Your task to perform on an android device: Open calendar and show me the fourth week of next month Image 0: 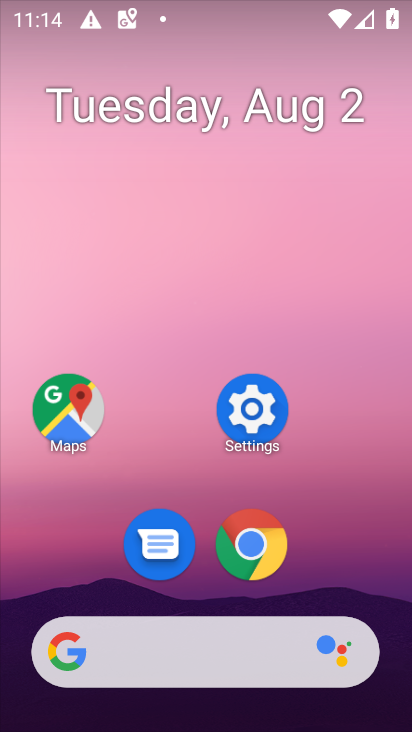
Step 0: drag from (185, 658) to (262, 137)
Your task to perform on an android device: Open calendar and show me the fourth week of next month Image 1: 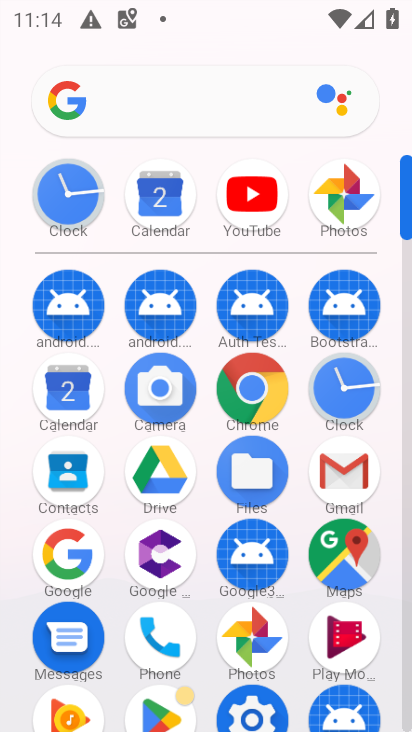
Step 1: click (165, 197)
Your task to perform on an android device: Open calendar and show me the fourth week of next month Image 2: 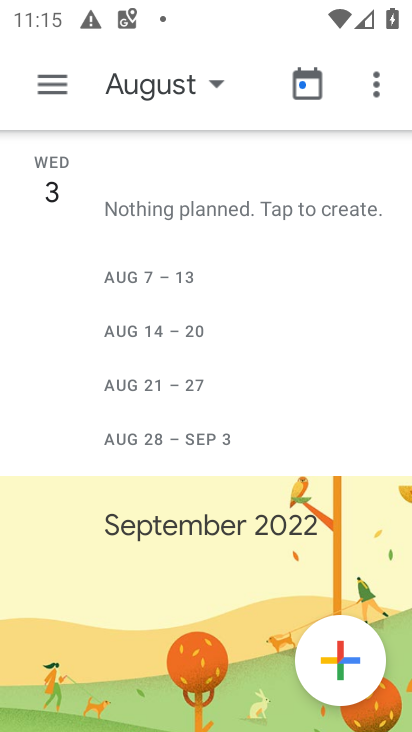
Step 2: click (144, 86)
Your task to perform on an android device: Open calendar and show me the fourth week of next month Image 3: 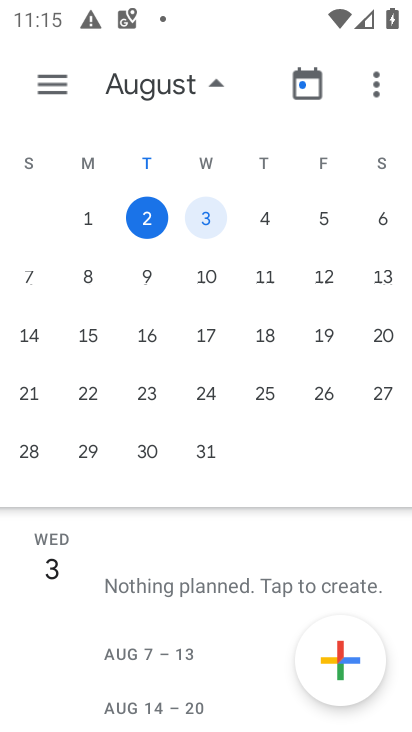
Step 3: drag from (346, 342) to (75, 331)
Your task to perform on an android device: Open calendar and show me the fourth week of next month Image 4: 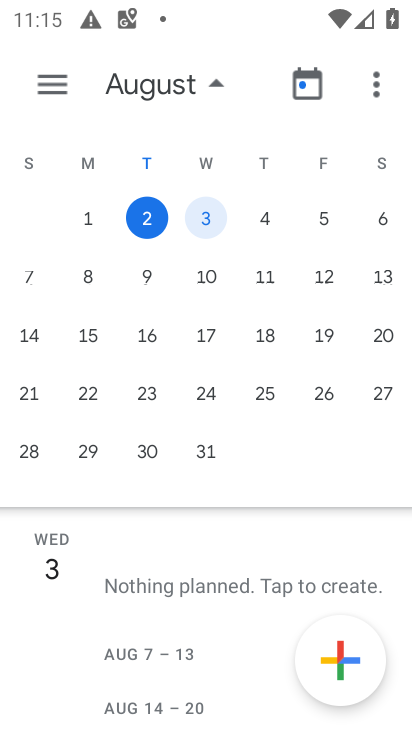
Step 4: drag from (379, 301) to (2, 407)
Your task to perform on an android device: Open calendar and show me the fourth week of next month Image 5: 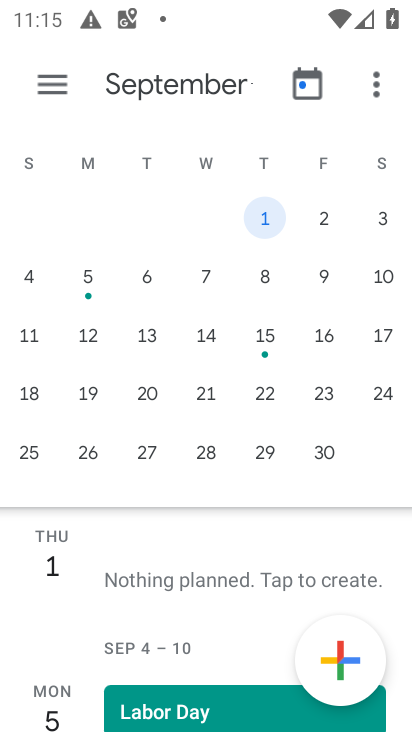
Step 5: click (31, 398)
Your task to perform on an android device: Open calendar and show me the fourth week of next month Image 6: 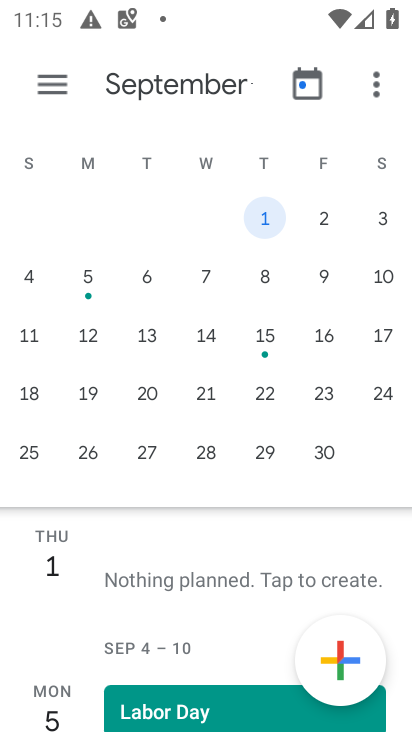
Step 6: click (39, 394)
Your task to perform on an android device: Open calendar and show me the fourth week of next month Image 7: 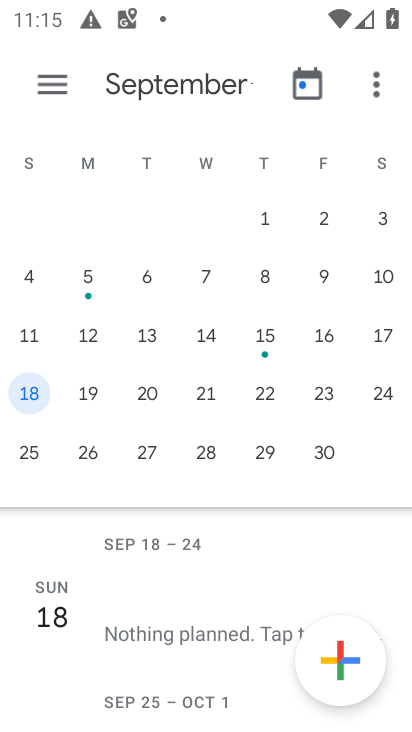
Step 7: click (58, 83)
Your task to perform on an android device: Open calendar and show me the fourth week of next month Image 8: 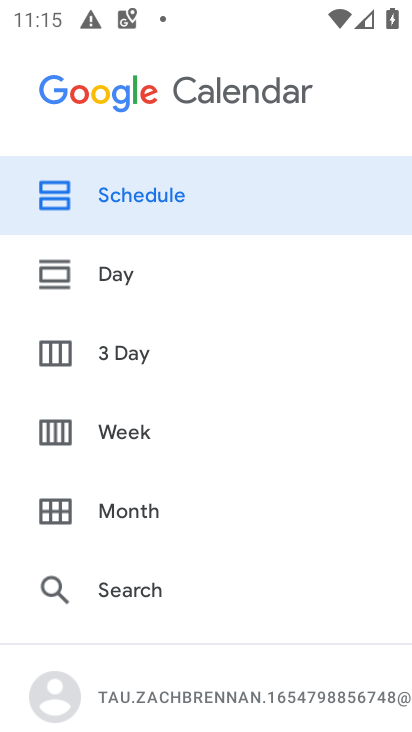
Step 8: click (131, 427)
Your task to perform on an android device: Open calendar and show me the fourth week of next month Image 9: 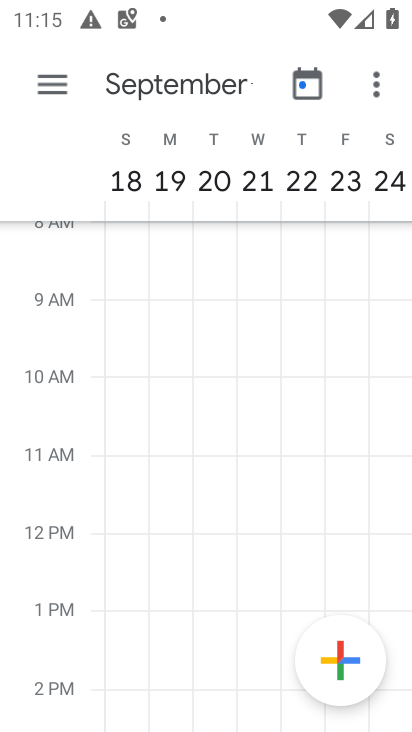
Step 9: task complete